Your task to perform on an android device: open a bookmark in the chrome app Image 0: 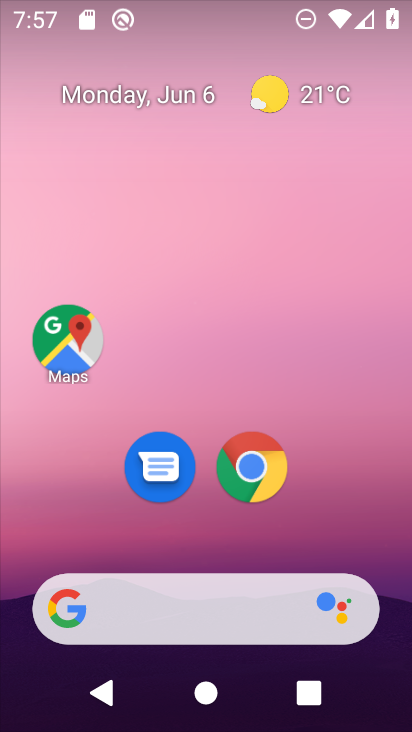
Step 0: drag from (371, 547) to (357, 106)
Your task to perform on an android device: open a bookmark in the chrome app Image 1: 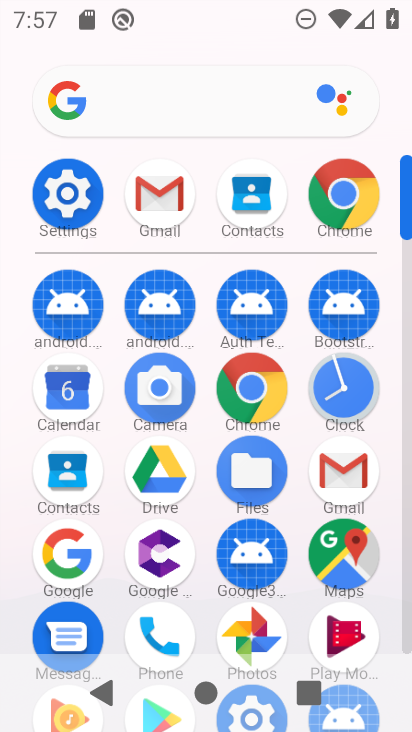
Step 1: click (261, 390)
Your task to perform on an android device: open a bookmark in the chrome app Image 2: 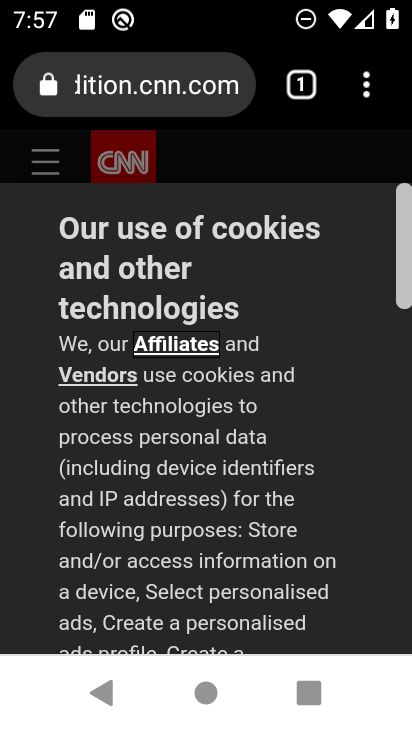
Step 2: click (370, 98)
Your task to perform on an android device: open a bookmark in the chrome app Image 3: 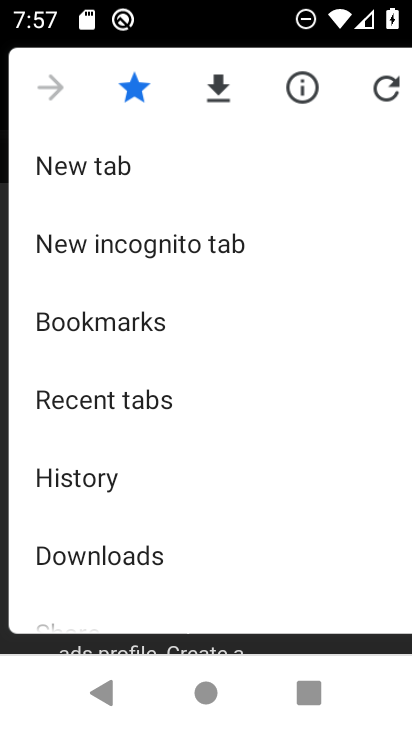
Step 3: drag from (307, 443) to (289, 297)
Your task to perform on an android device: open a bookmark in the chrome app Image 4: 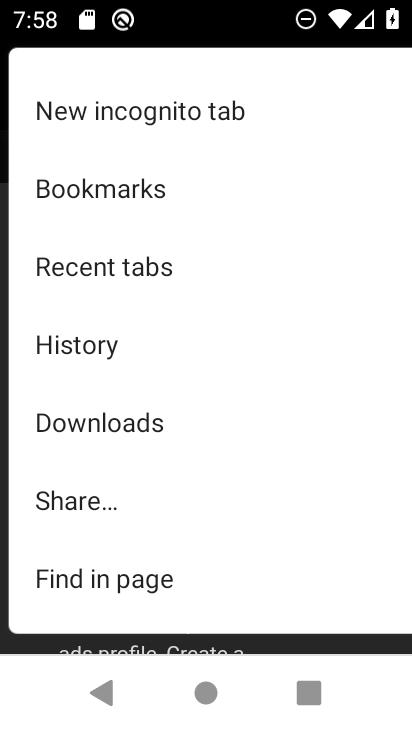
Step 4: click (206, 197)
Your task to perform on an android device: open a bookmark in the chrome app Image 5: 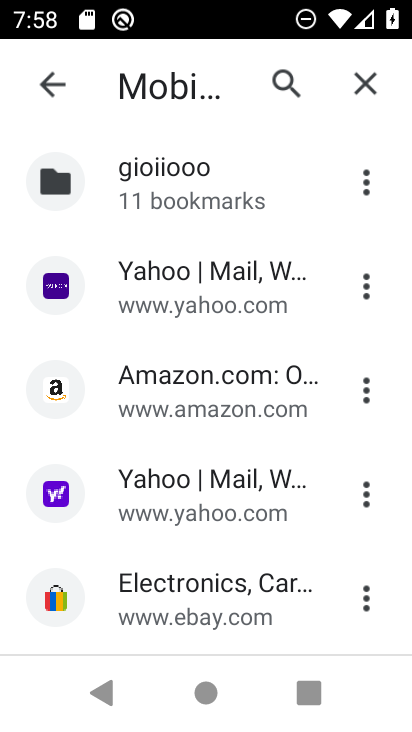
Step 5: click (259, 185)
Your task to perform on an android device: open a bookmark in the chrome app Image 6: 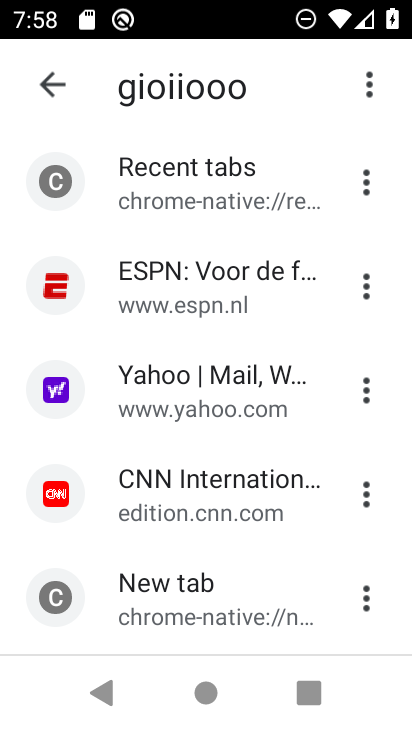
Step 6: click (173, 285)
Your task to perform on an android device: open a bookmark in the chrome app Image 7: 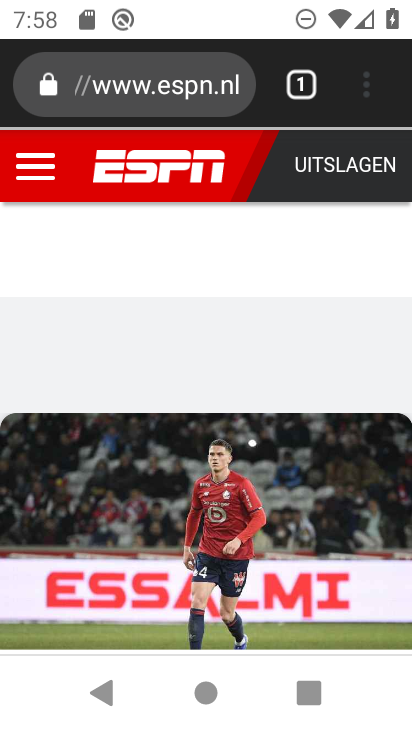
Step 7: task complete